Your task to perform on an android device: turn on notifications settings in the gmail app Image 0: 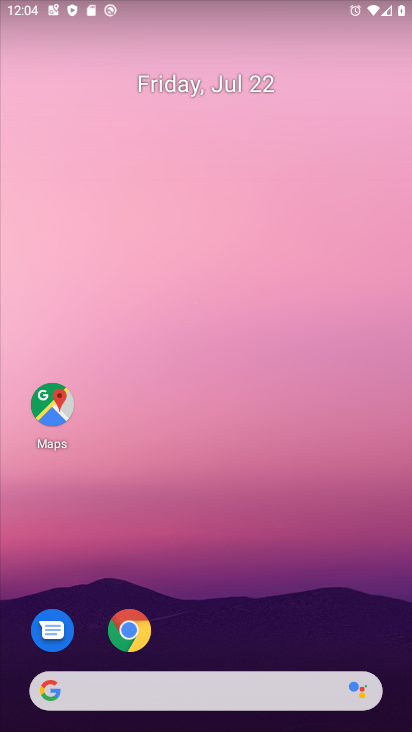
Step 0: drag from (231, 607) to (133, 131)
Your task to perform on an android device: turn on notifications settings in the gmail app Image 1: 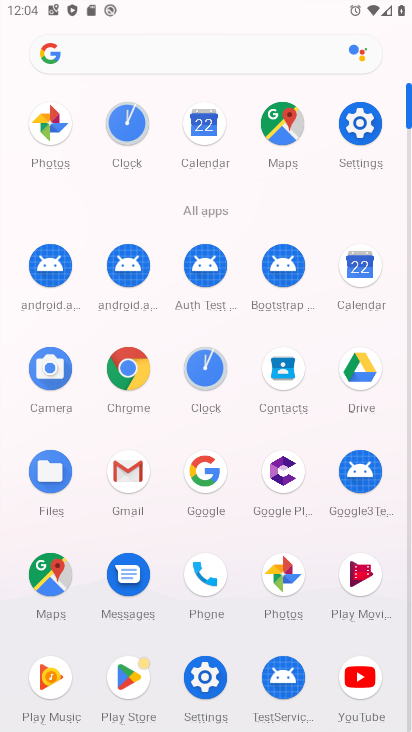
Step 1: click (130, 478)
Your task to perform on an android device: turn on notifications settings in the gmail app Image 2: 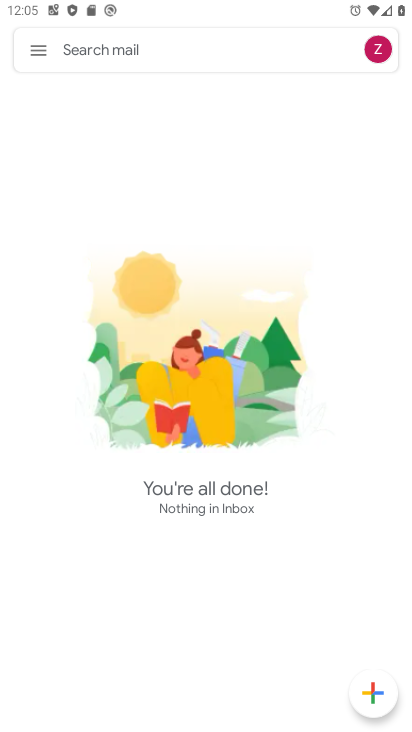
Step 2: click (38, 44)
Your task to perform on an android device: turn on notifications settings in the gmail app Image 3: 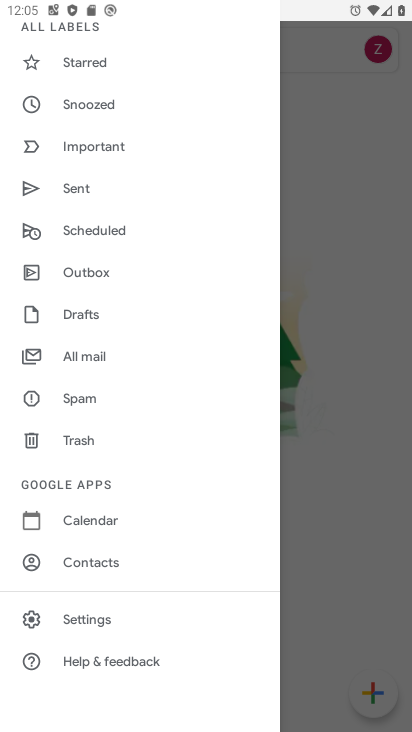
Step 3: click (74, 625)
Your task to perform on an android device: turn on notifications settings in the gmail app Image 4: 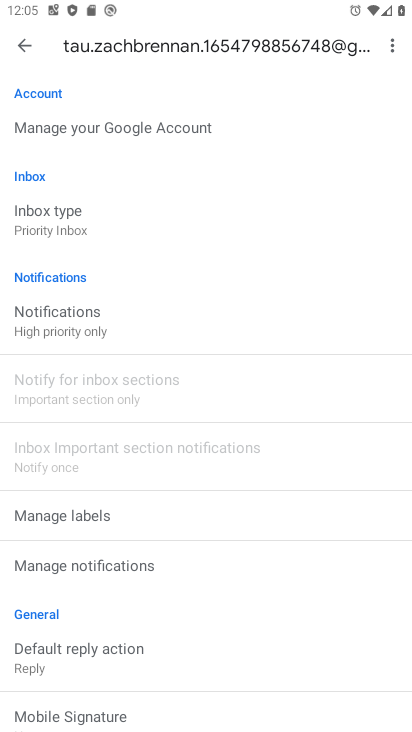
Step 4: click (91, 569)
Your task to perform on an android device: turn on notifications settings in the gmail app Image 5: 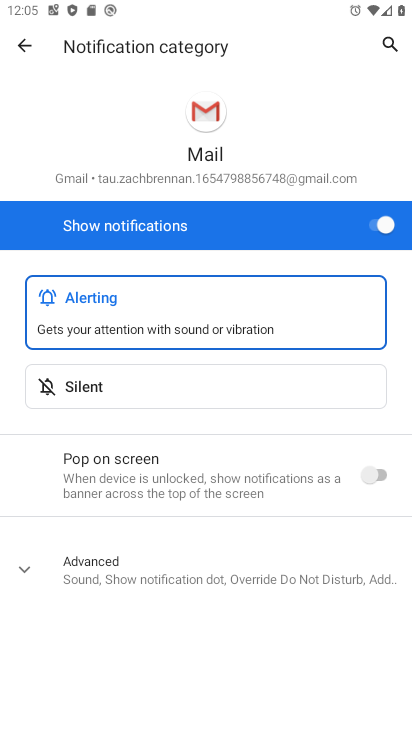
Step 5: task complete